Your task to perform on an android device: Open the web browser Image 0: 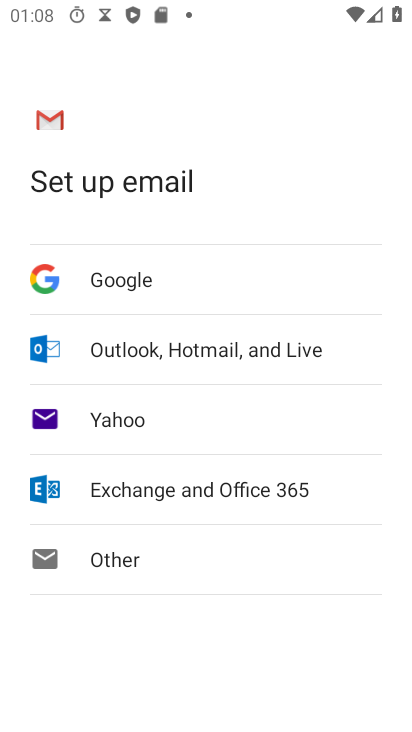
Step 0: press home button
Your task to perform on an android device: Open the web browser Image 1: 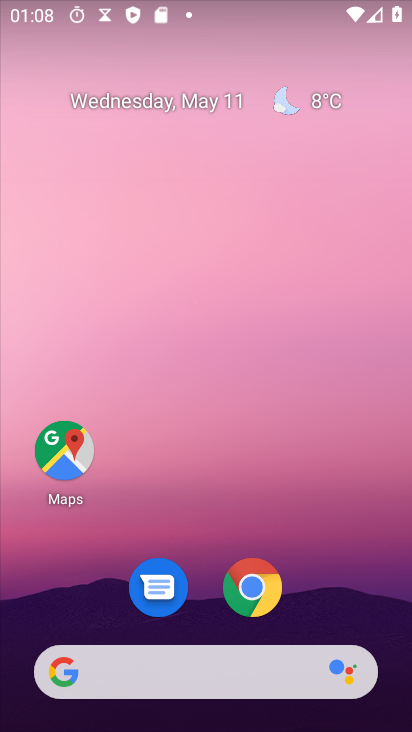
Step 1: drag from (336, 504) to (156, 148)
Your task to perform on an android device: Open the web browser Image 2: 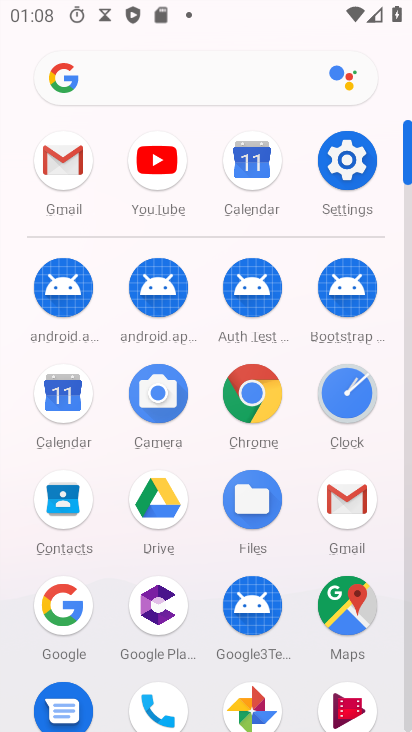
Step 2: click (243, 385)
Your task to perform on an android device: Open the web browser Image 3: 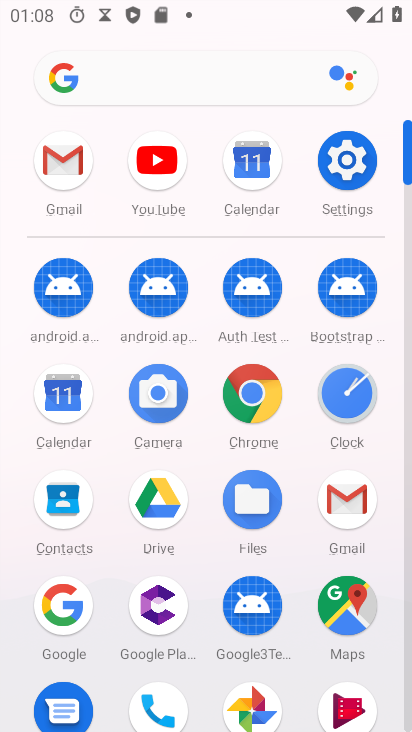
Step 3: click (243, 385)
Your task to perform on an android device: Open the web browser Image 4: 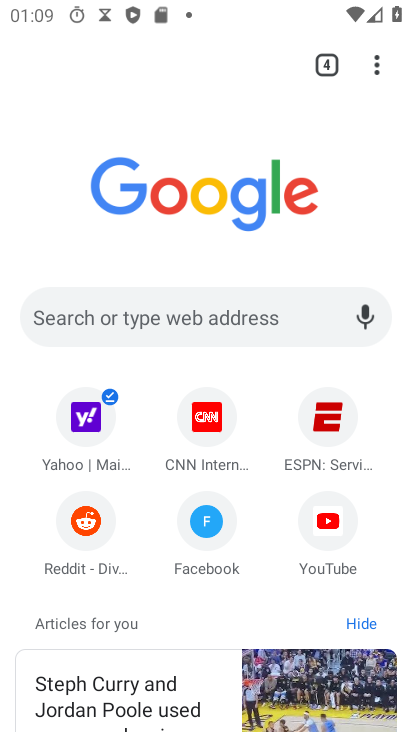
Step 4: drag from (375, 71) to (138, 130)
Your task to perform on an android device: Open the web browser Image 5: 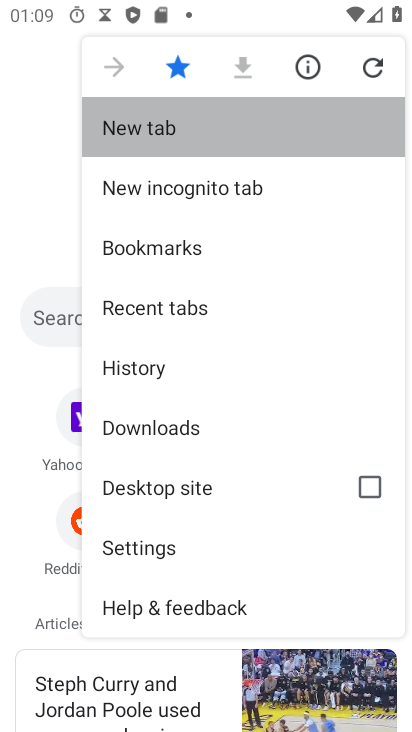
Step 5: click (140, 131)
Your task to perform on an android device: Open the web browser Image 6: 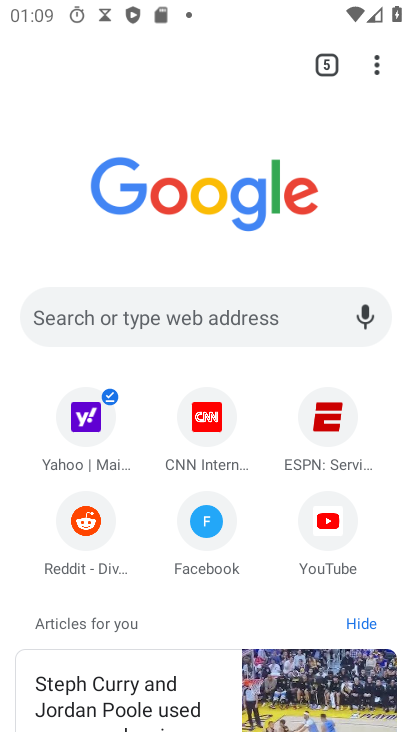
Step 6: task complete